Your task to perform on an android device: toggle pop-ups in chrome Image 0: 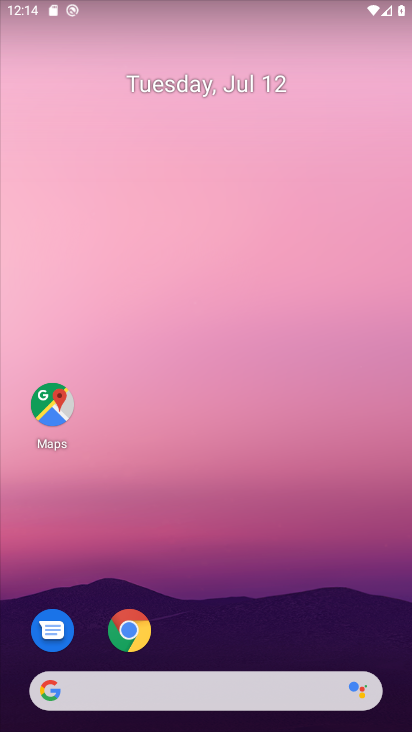
Step 0: drag from (238, 506) to (194, 11)
Your task to perform on an android device: toggle pop-ups in chrome Image 1: 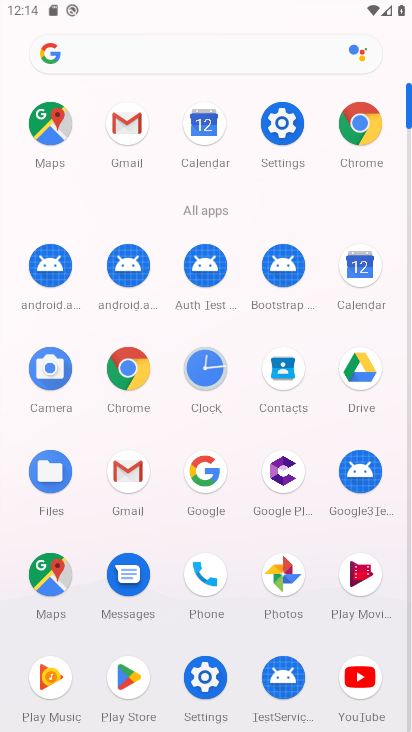
Step 1: click (357, 307)
Your task to perform on an android device: toggle pop-ups in chrome Image 2: 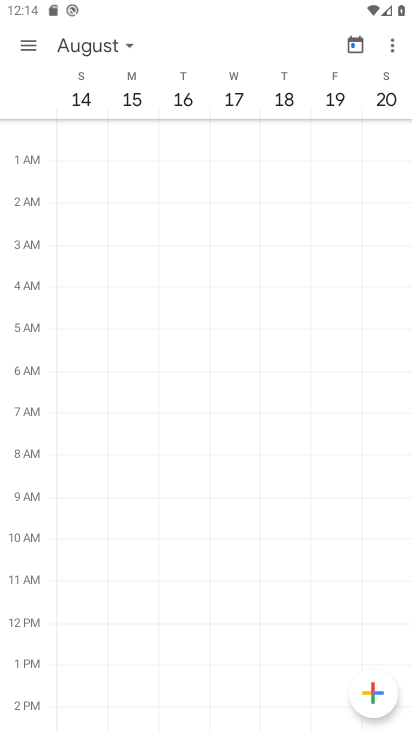
Step 2: task complete